Your task to perform on an android device: all mails in gmail Image 0: 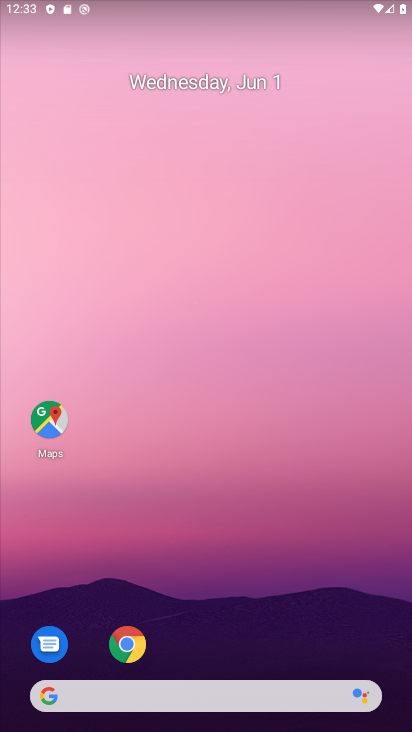
Step 0: drag from (140, 455) to (128, 101)
Your task to perform on an android device: all mails in gmail Image 1: 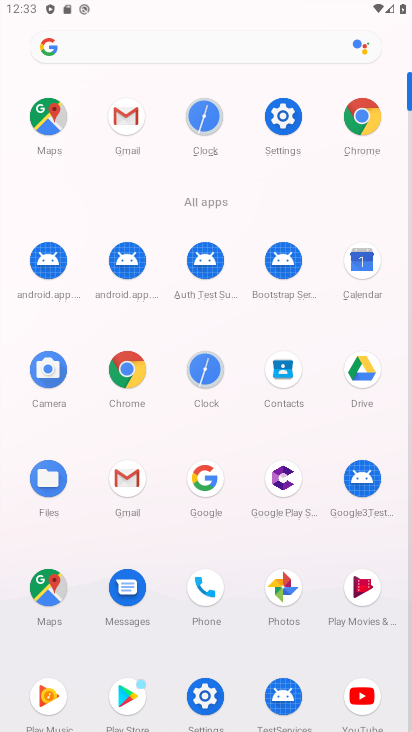
Step 1: click (134, 133)
Your task to perform on an android device: all mails in gmail Image 2: 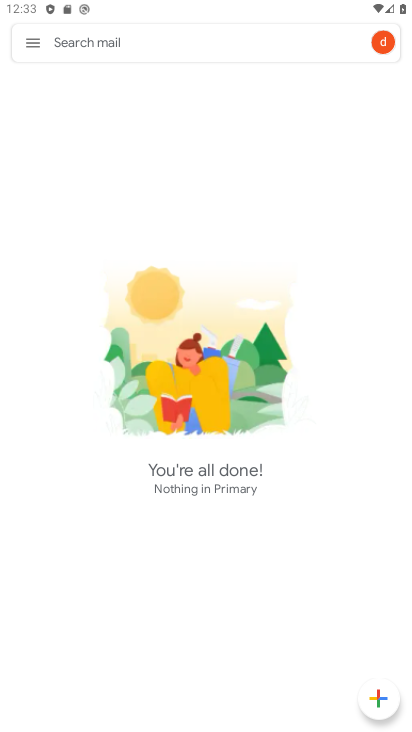
Step 2: click (21, 51)
Your task to perform on an android device: all mails in gmail Image 3: 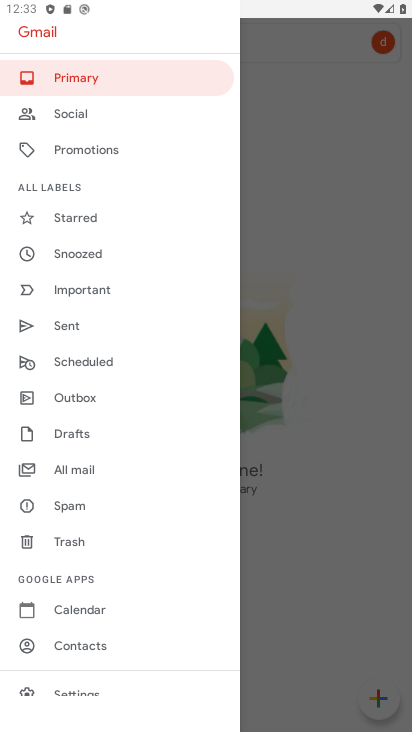
Step 3: click (71, 468)
Your task to perform on an android device: all mails in gmail Image 4: 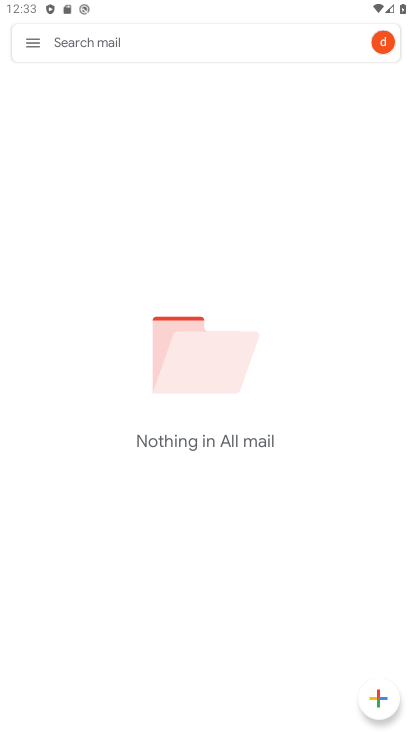
Step 4: task complete